Your task to perform on an android device: Open settings Image 0: 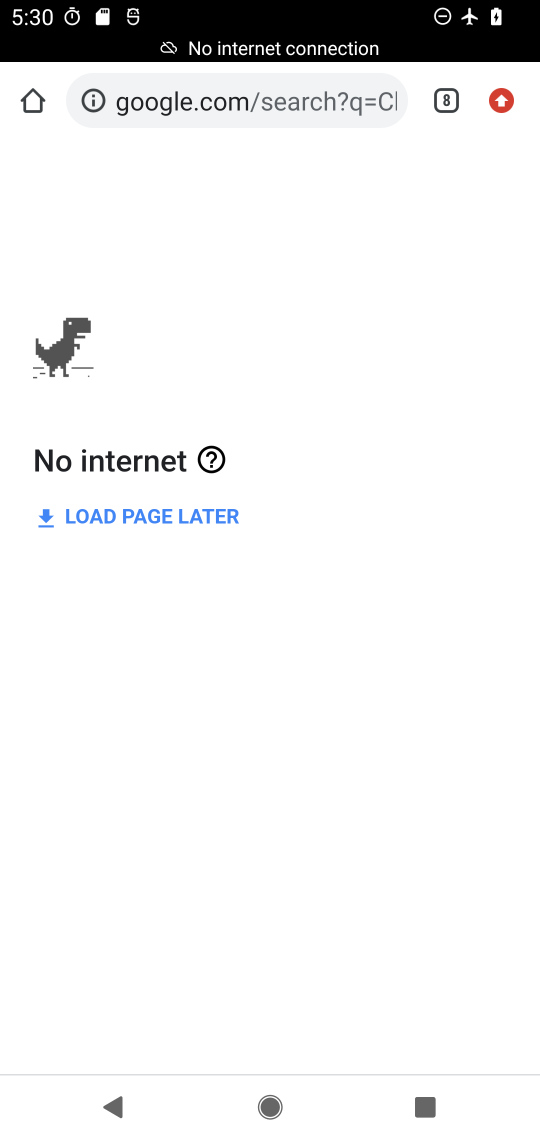
Step 0: press home button
Your task to perform on an android device: Open settings Image 1: 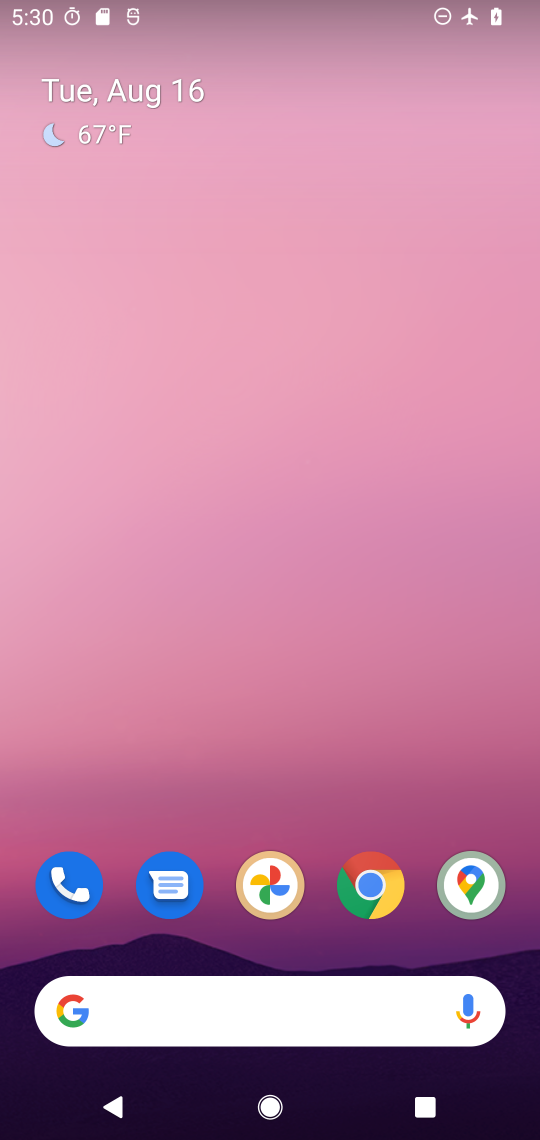
Step 1: drag from (347, 822) to (323, 288)
Your task to perform on an android device: Open settings Image 2: 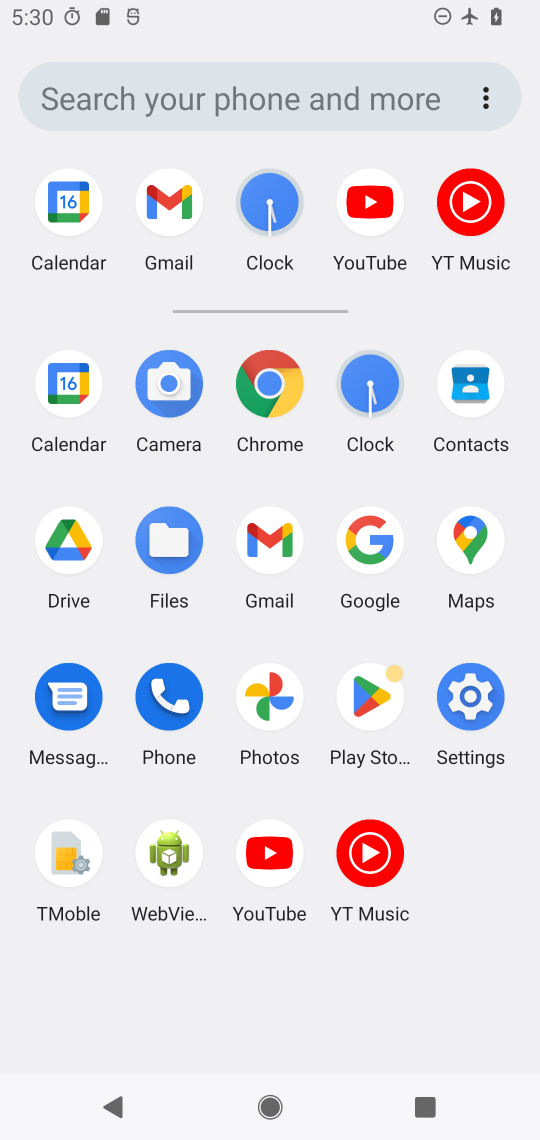
Step 2: click (476, 703)
Your task to perform on an android device: Open settings Image 3: 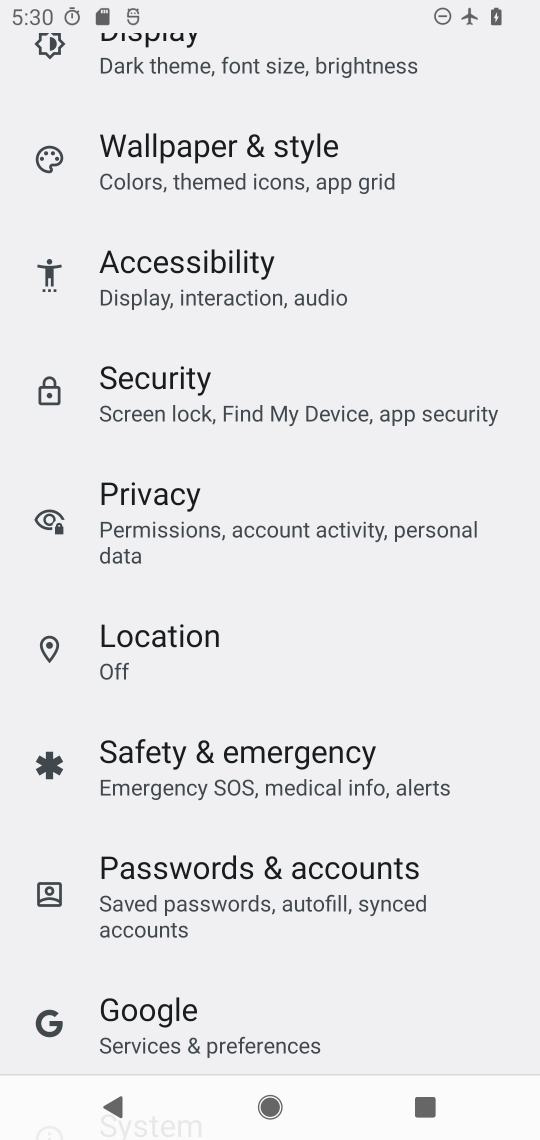
Step 3: task complete